Your task to perform on an android device: turn off wifi Image 0: 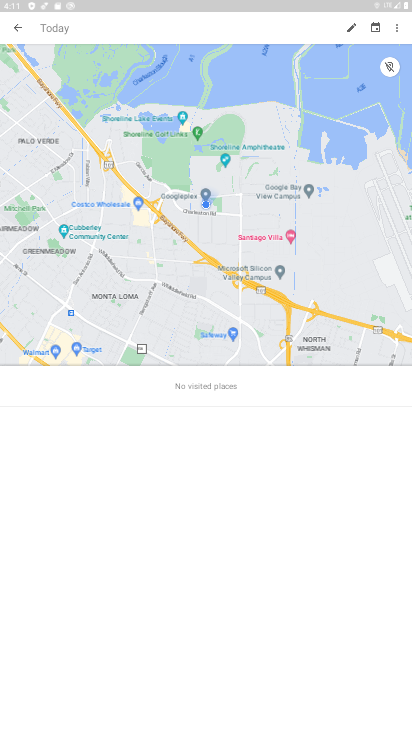
Step 0: press home button
Your task to perform on an android device: turn off wifi Image 1: 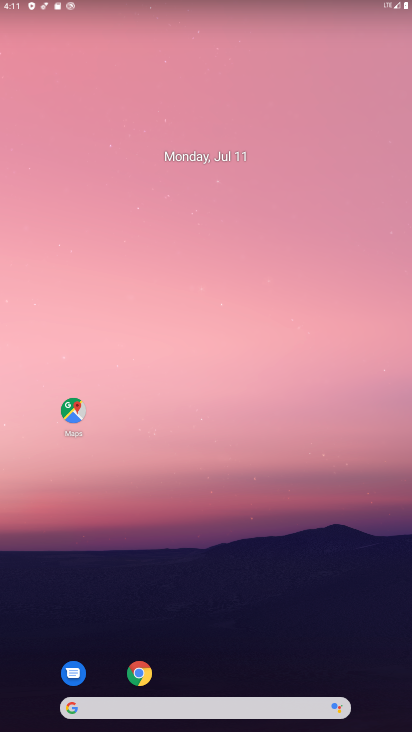
Step 1: drag from (301, 559) to (273, 25)
Your task to perform on an android device: turn off wifi Image 2: 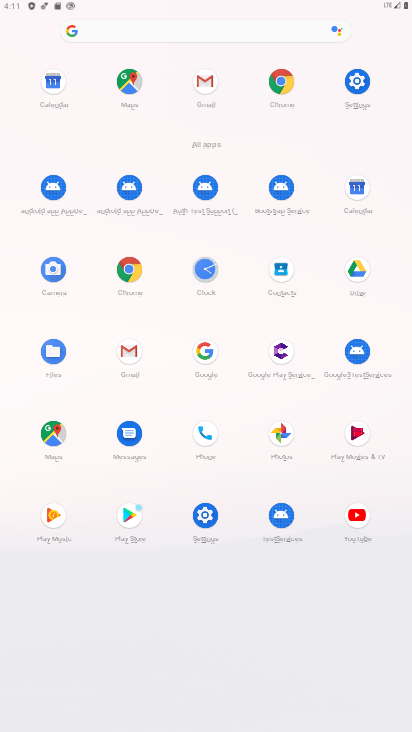
Step 2: click (355, 81)
Your task to perform on an android device: turn off wifi Image 3: 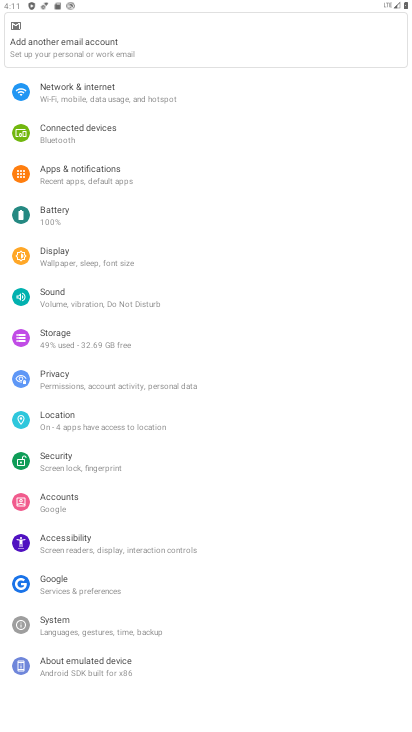
Step 3: click (80, 90)
Your task to perform on an android device: turn off wifi Image 4: 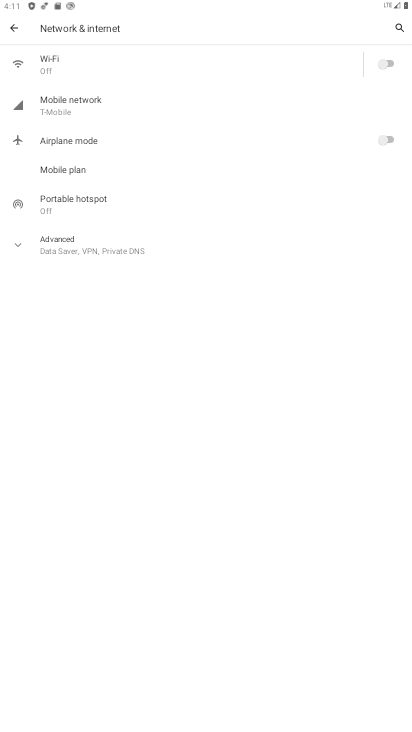
Step 4: task complete